Your task to perform on an android device: turn off smart reply in the gmail app Image 0: 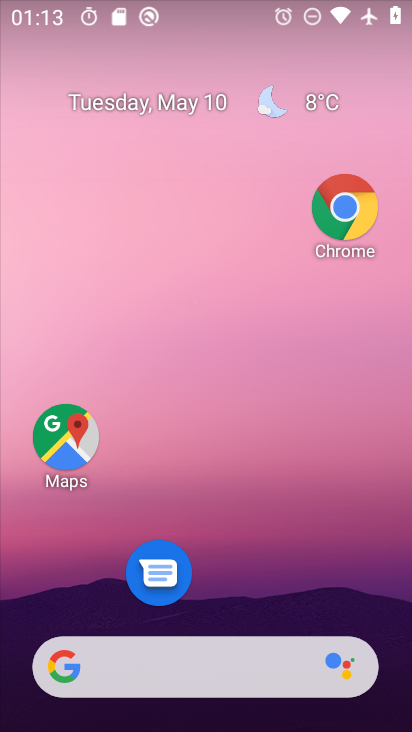
Step 0: drag from (325, 604) to (308, 156)
Your task to perform on an android device: turn off smart reply in the gmail app Image 1: 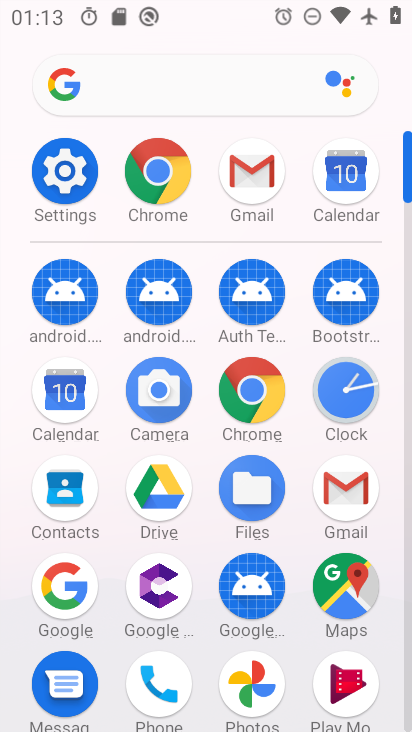
Step 1: click (255, 172)
Your task to perform on an android device: turn off smart reply in the gmail app Image 2: 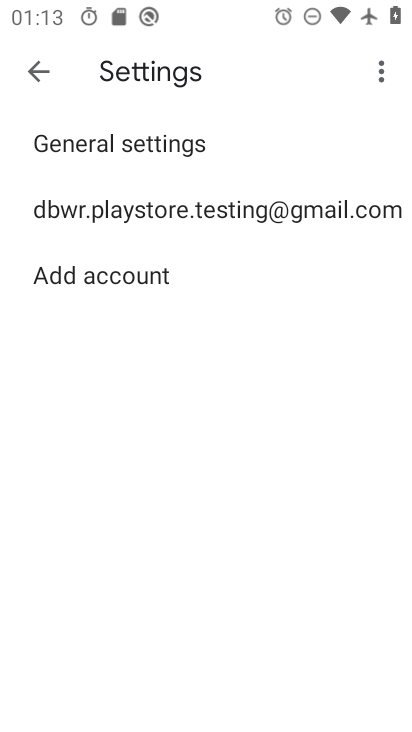
Step 2: click (36, 75)
Your task to perform on an android device: turn off smart reply in the gmail app Image 3: 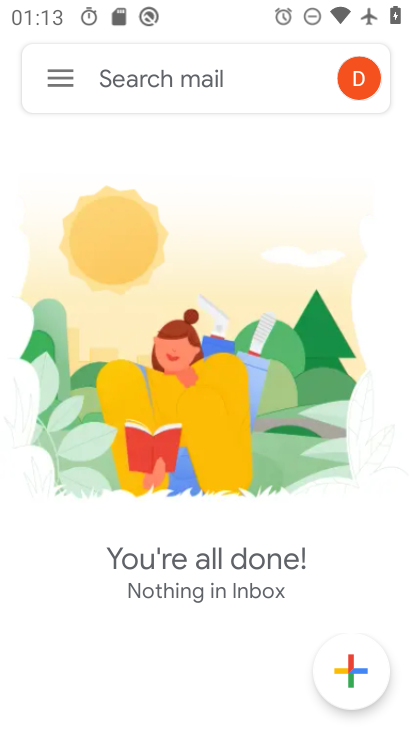
Step 3: click (38, 74)
Your task to perform on an android device: turn off smart reply in the gmail app Image 4: 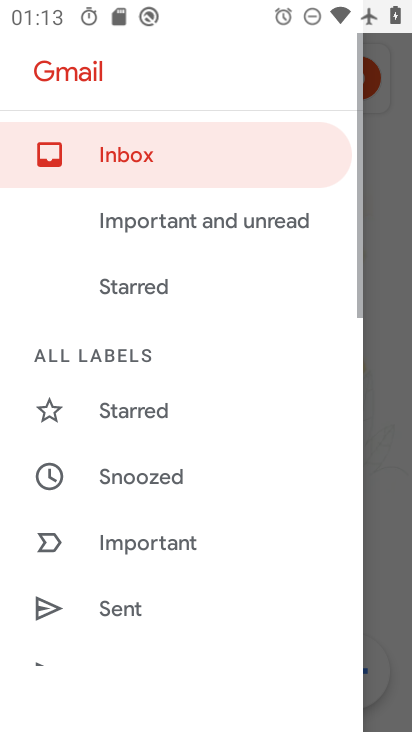
Step 4: drag from (128, 555) to (210, 196)
Your task to perform on an android device: turn off smart reply in the gmail app Image 5: 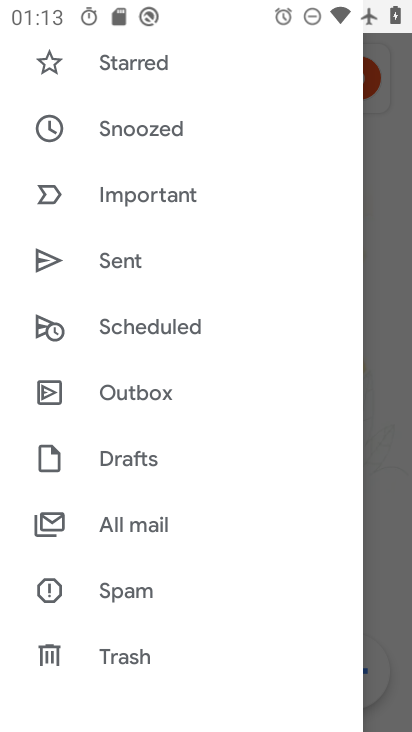
Step 5: drag from (113, 650) to (200, 297)
Your task to perform on an android device: turn off smart reply in the gmail app Image 6: 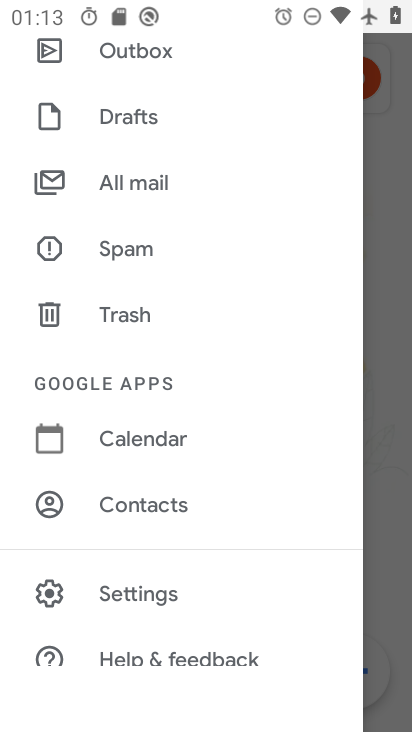
Step 6: click (135, 587)
Your task to perform on an android device: turn off smart reply in the gmail app Image 7: 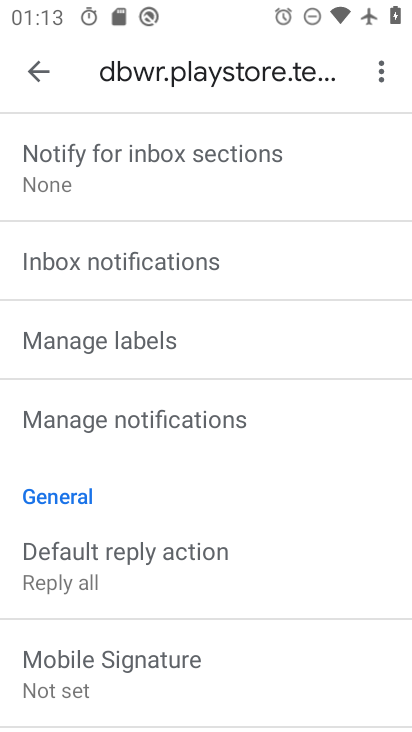
Step 7: task complete